Your task to perform on an android device: turn on the 24-hour format for clock Image 0: 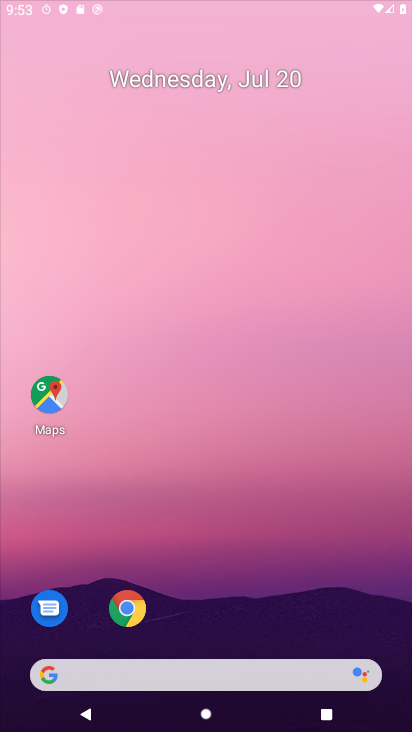
Step 0: drag from (193, 652) to (259, 173)
Your task to perform on an android device: turn on the 24-hour format for clock Image 1: 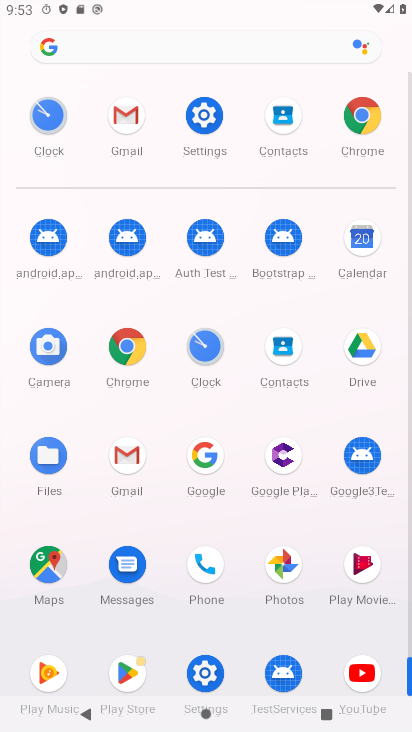
Step 1: drag from (276, 649) to (226, 321)
Your task to perform on an android device: turn on the 24-hour format for clock Image 2: 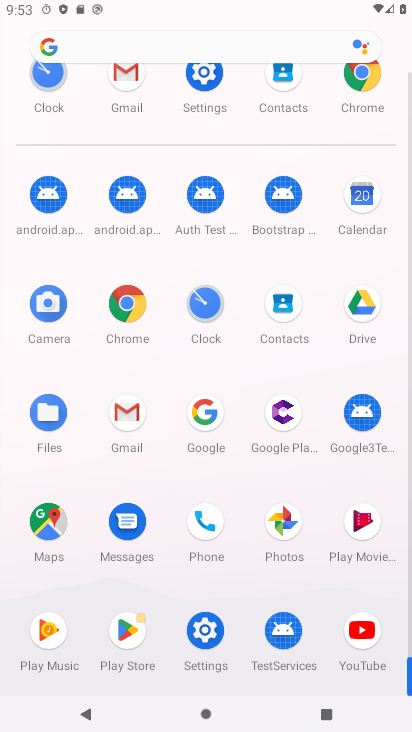
Step 2: click (205, 305)
Your task to perform on an android device: turn on the 24-hour format for clock Image 3: 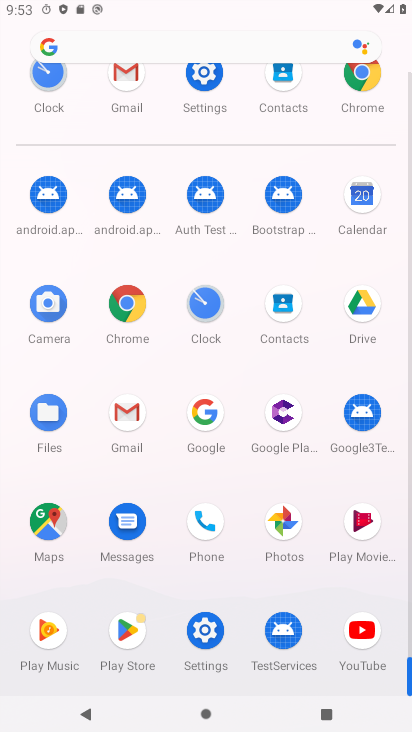
Step 3: click (206, 298)
Your task to perform on an android device: turn on the 24-hour format for clock Image 4: 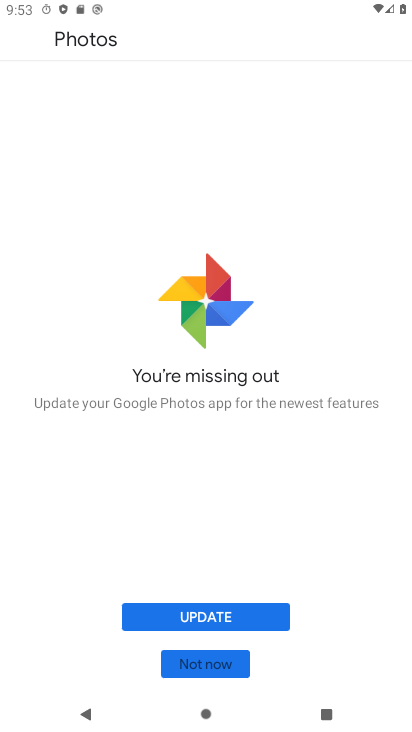
Step 4: click (214, 658)
Your task to perform on an android device: turn on the 24-hour format for clock Image 5: 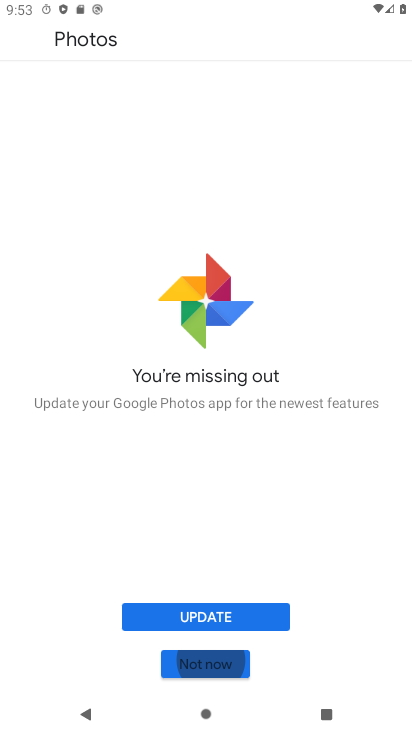
Step 5: click (212, 659)
Your task to perform on an android device: turn on the 24-hour format for clock Image 6: 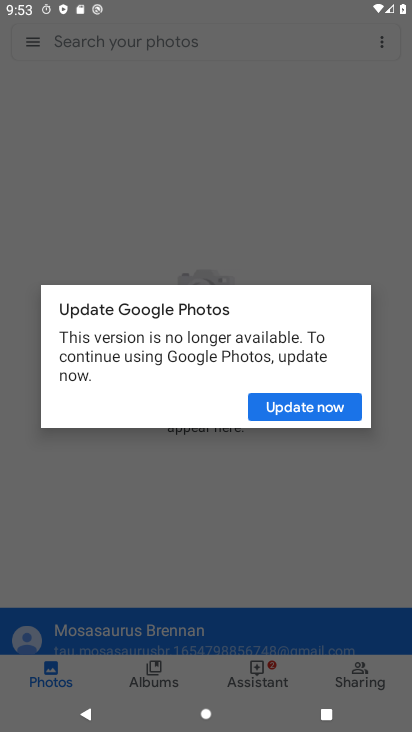
Step 6: click (328, 227)
Your task to perform on an android device: turn on the 24-hour format for clock Image 7: 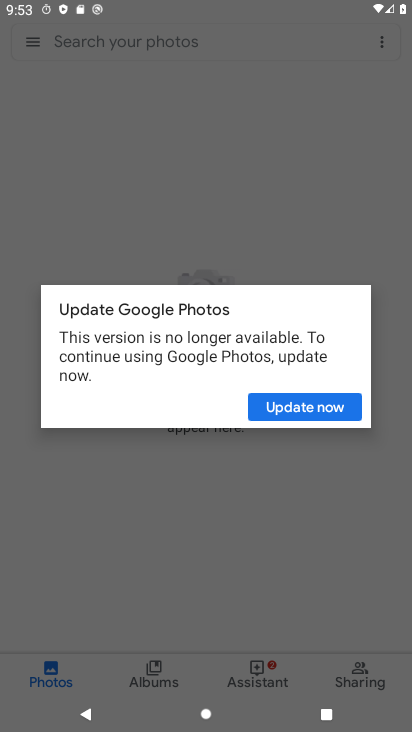
Step 7: press back button
Your task to perform on an android device: turn on the 24-hour format for clock Image 8: 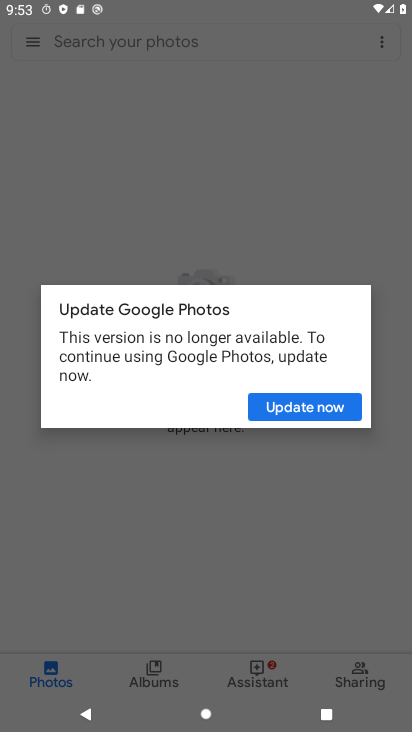
Step 8: press back button
Your task to perform on an android device: turn on the 24-hour format for clock Image 9: 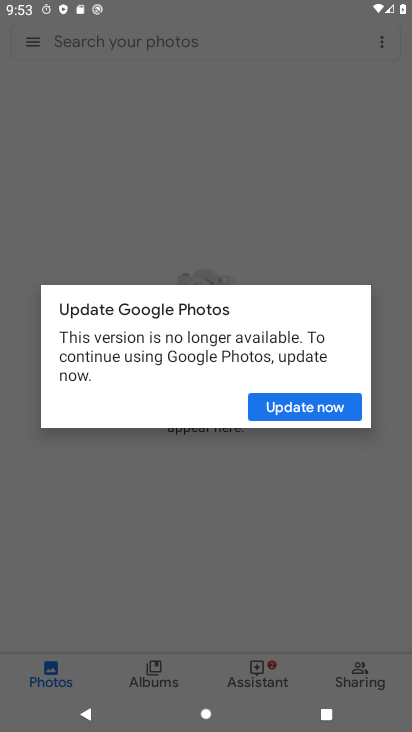
Step 9: press home button
Your task to perform on an android device: turn on the 24-hour format for clock Image 10: 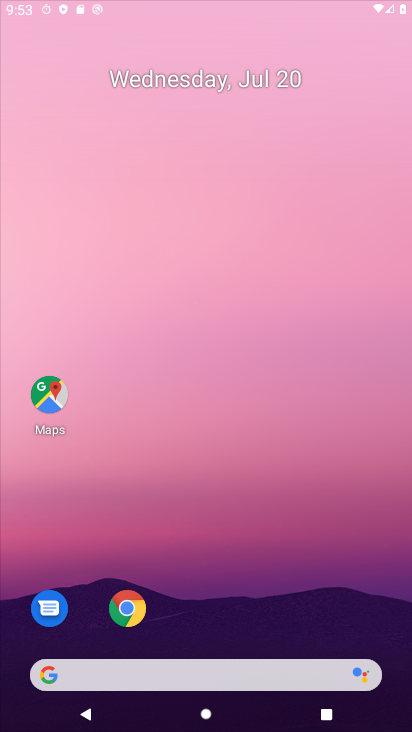
Step 10: click (293, 221)
Your task to perform on an android device: turn on the 24-hour format for clock Image 11: 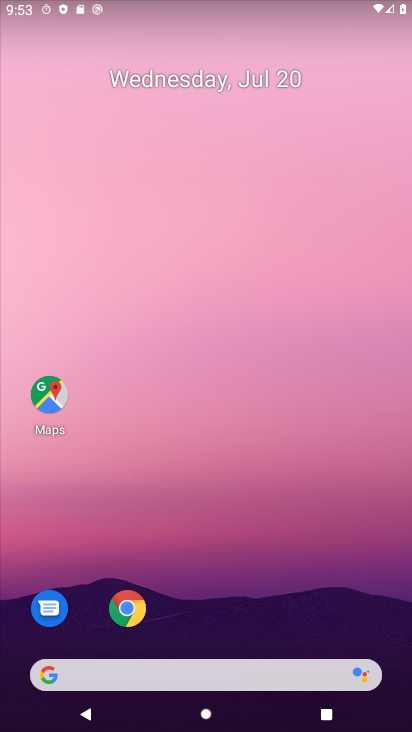
Step 11: drag from (267, 698) to (317, 126)
Your task to perform on an android device: turn on the 24-hour format for clock Image 12: 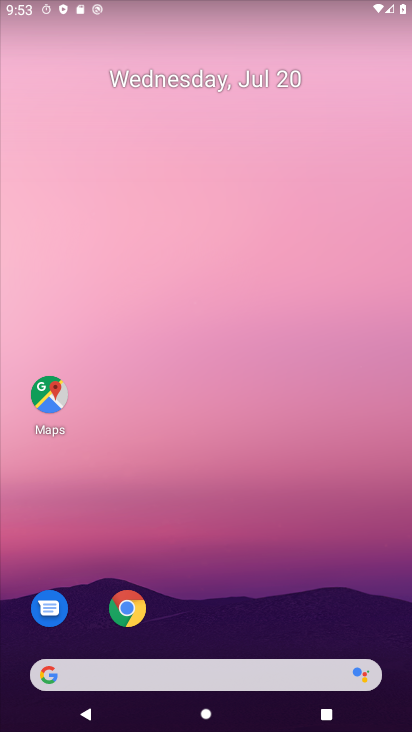
Step 12: drag from (251, 652) to (232, 122)
Your task to perform on an android device: turn on the 24-hour format for clock Image 13: 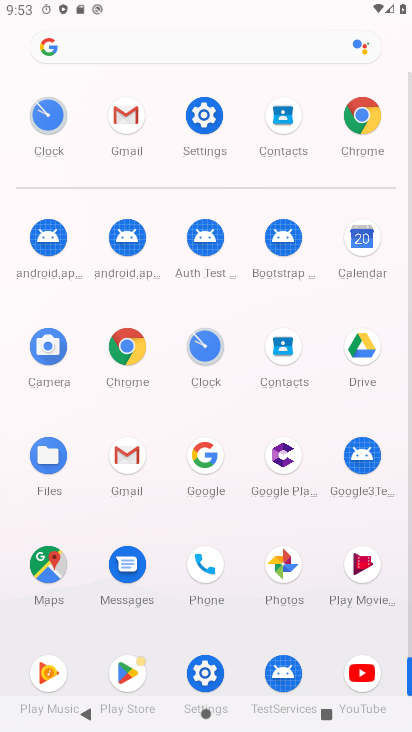
Step 13: click (202, 350)
Your task to perform on an android device: turn on the 24-hour format for clock Image 14: 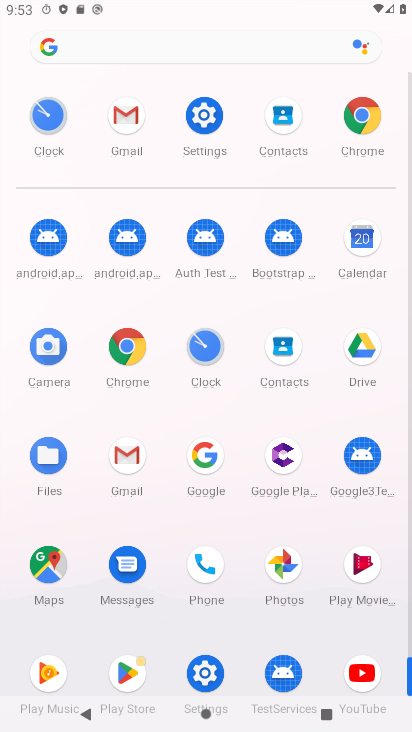
Step 14: click (203, 330)
Your task to perform on an android device: turn on the 24-hour format for clock Image 15: 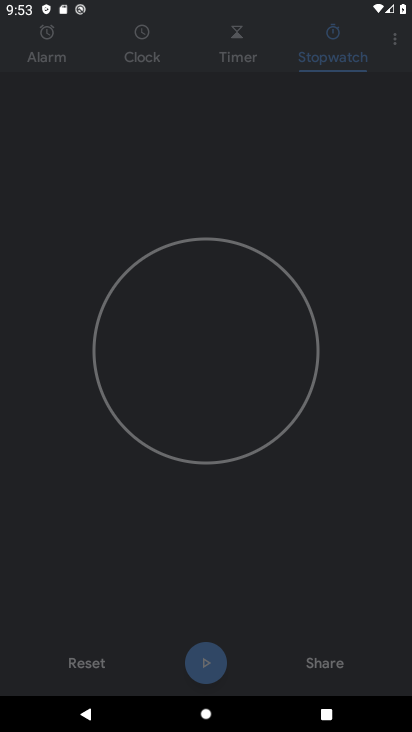
Step 15: click (207, 353)
Your task to perform on an android device: turn on the 24-hour format for clock Image 16: 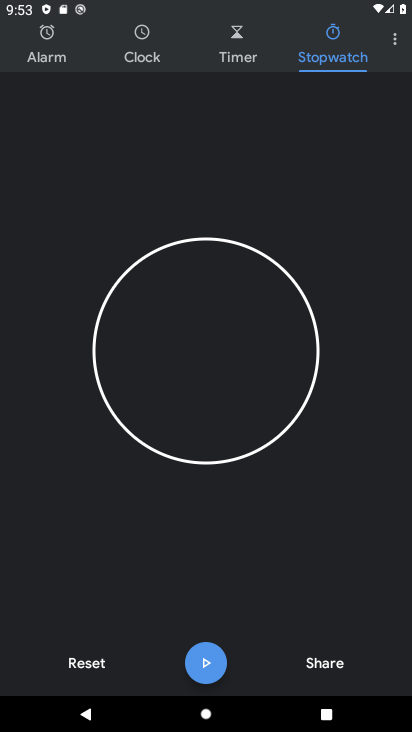
Step 16: click (207, 354)
Your task to perform on an android device: turn on the 24-hour format for clock Image 17: 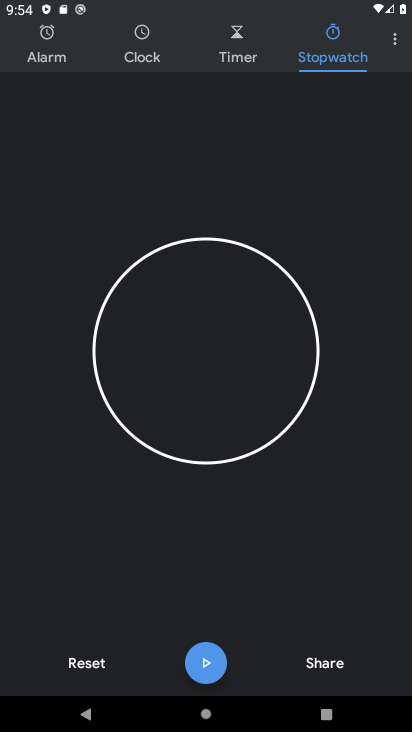
Step 17: drag from (398, 39) to (301, 82)
Your task to perform on an android device: turn on the 24-hour format for clock Image 18: 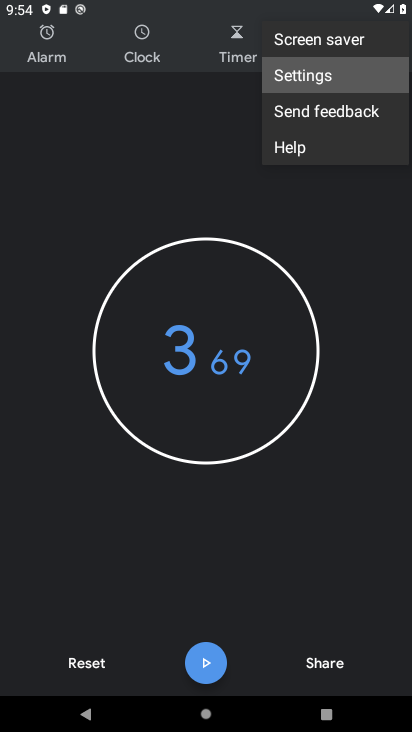
Step 18: click (301, 82)
Your task to perform on an android device: turn on the 24-hour format for clock Image 19: 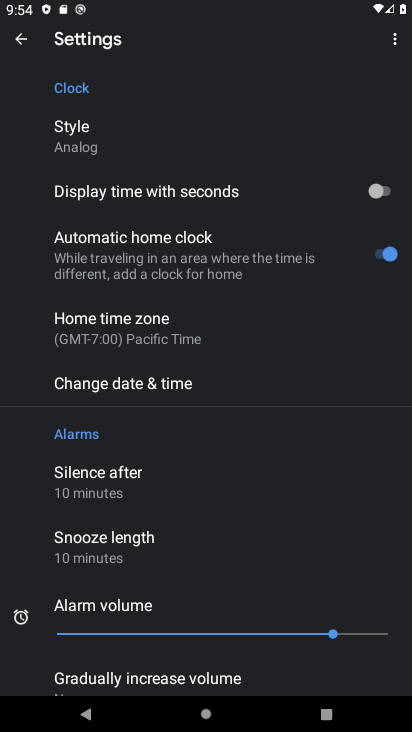
Step 19: click (125, 327)
Your task to perform on an android device: turn on the 24-hour format for clock Image 20: 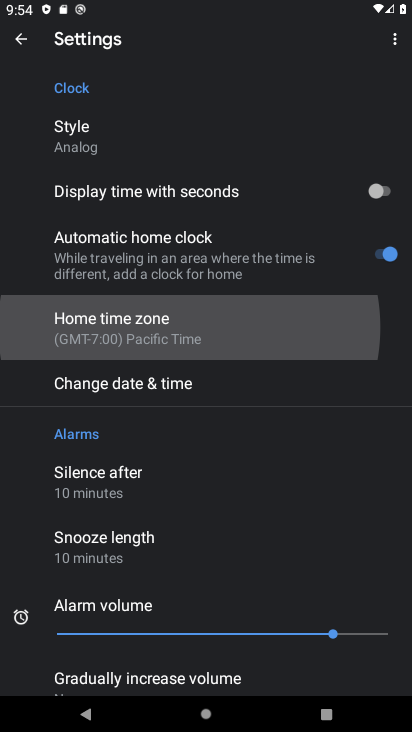
Step 20: click (125, 327)
Your task to perform on an android device: turn on the 24-hour format for clock Image 21: 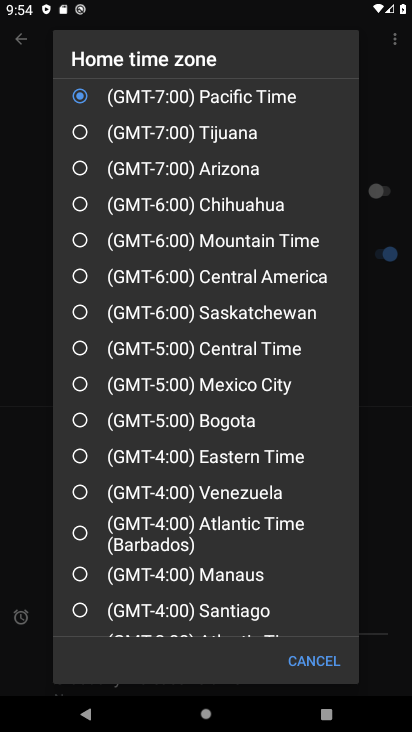
Step 21: click (375, 142)
Your task to perform on an android device: turn on the 24-hour format for clock Image 22: 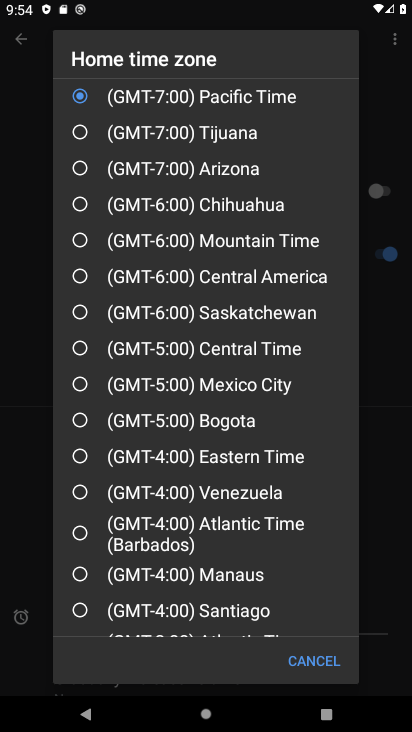
Step 22: click (378, 141)
Your task to perform on an android device: turn on the 24-hour format for clock Image 23: 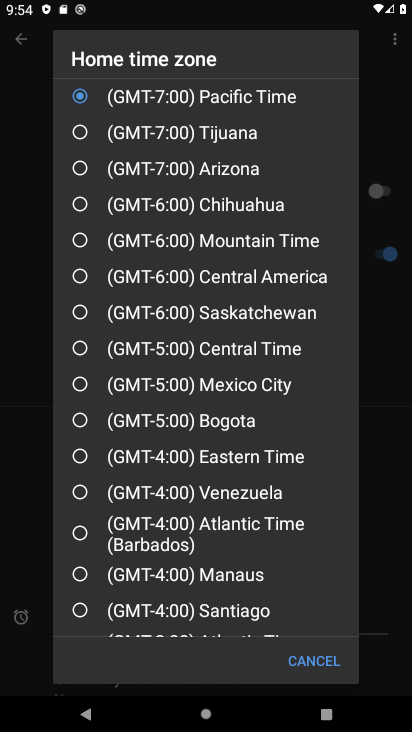
Step 23: click (378, 141)
Your task to perform on an android device: turn on the 24-hour format for clock Image 24: 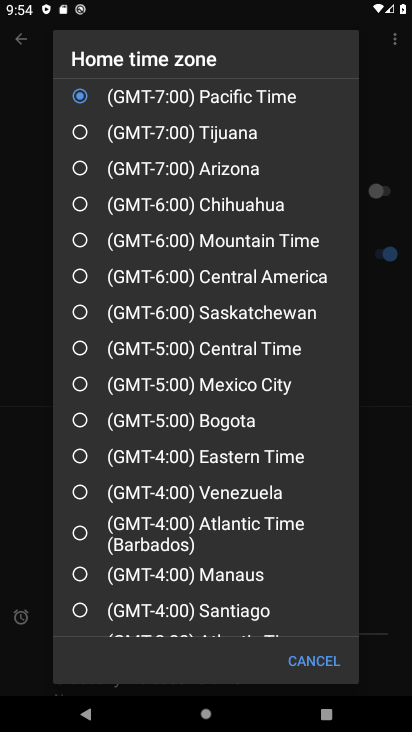
Step 24: click (314, 658)
Your task to perform on an android device: turn on the 24-hour format for clock Image 25: 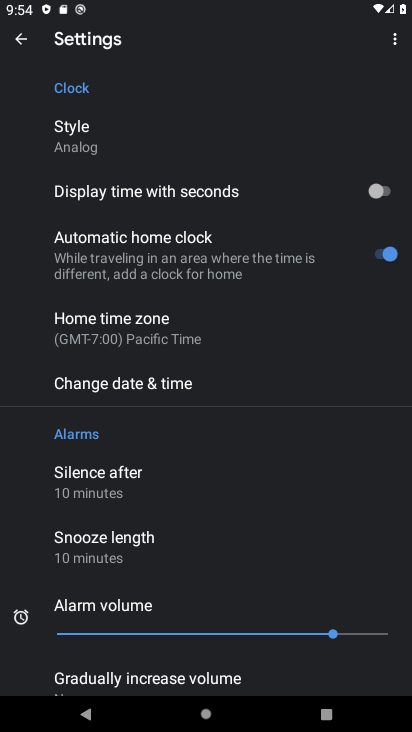
Step 25: click (105, 387)
Your task to perform on an android device: turn on the 24-hour format for clock Image 26: 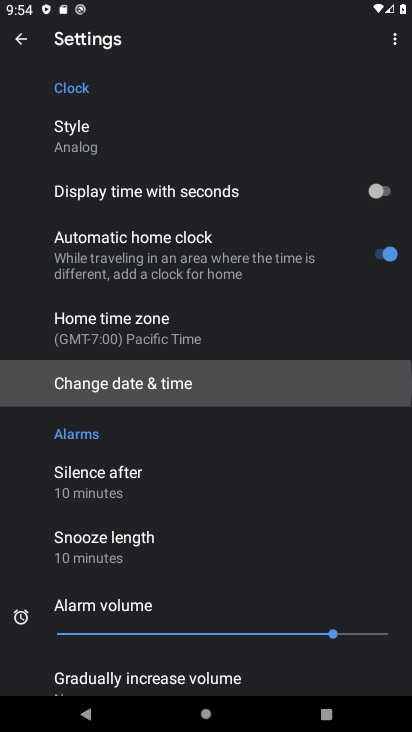
Step 26: click (107, 383)
Your task to perform on an android device: turn on the 24-hour format for clock Image 27: 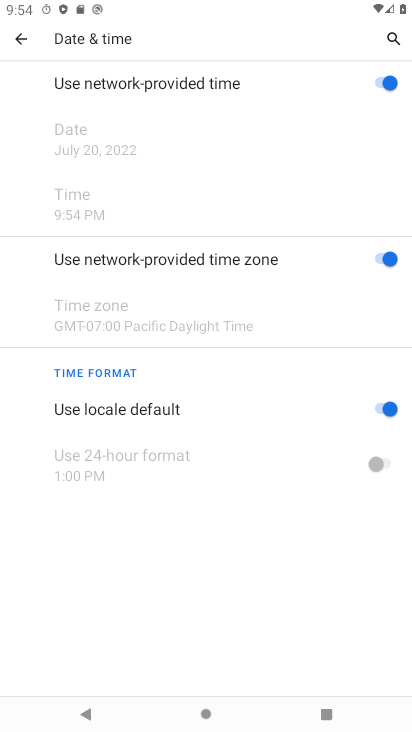
Step 27: click (391, 400)
Your task to perform on an android device: turn on the 24-hour format for clock Image 28: 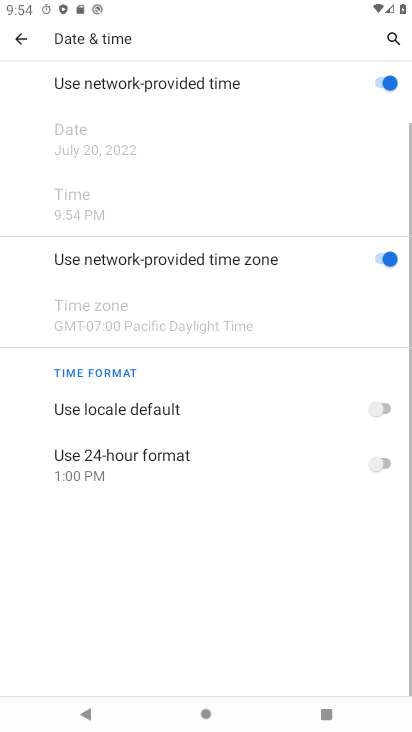
Step 28: click (377, 461)
Your task to perform on an android device: turn on the 24-hour format for clock Image 29: 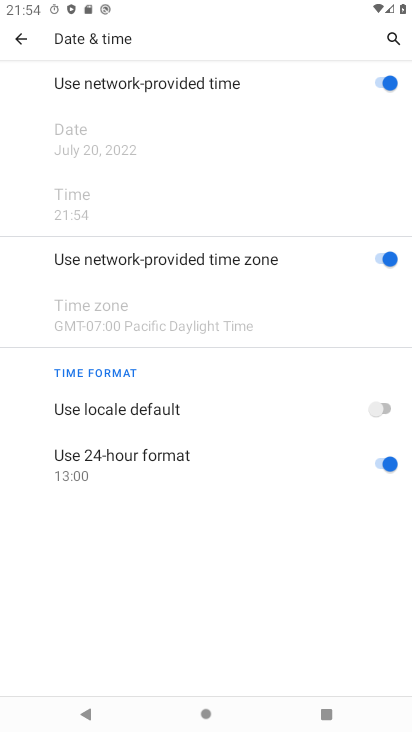
Step 29: task complete